Your task to perform on an android device: What's the weather going to be this weekend? Image 0: 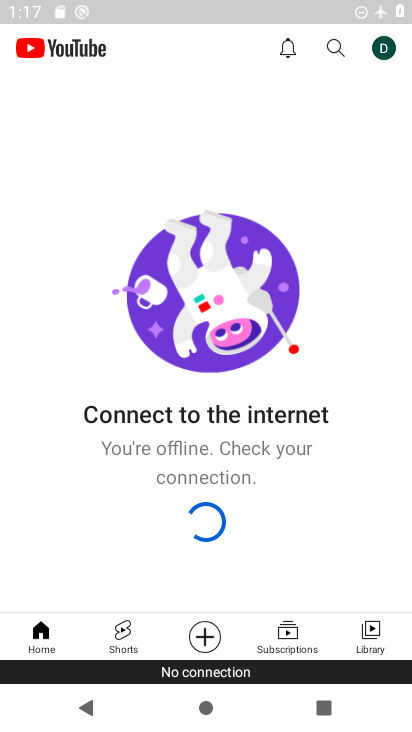
Step 0: press home button
Your task to perform on an android device: What's the weather going to be this weekend? Image 1: 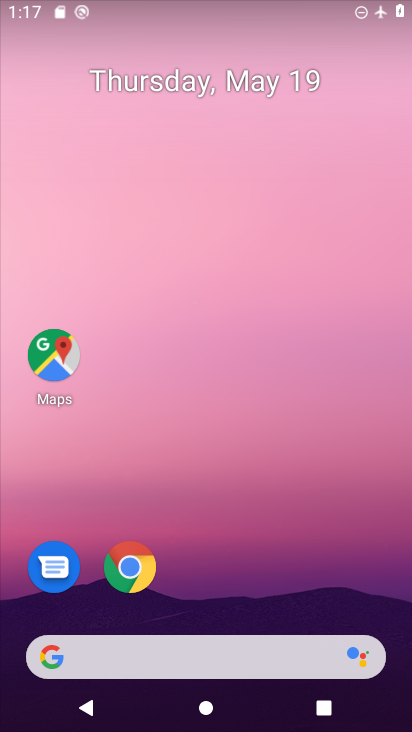
Step 1: click (293, 655)
Your task to perform on an android device: What's the weather going to be this weekend? Image 2: 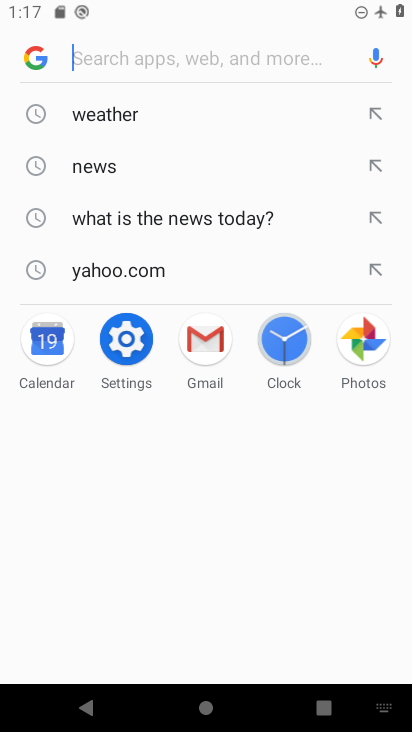
Step 2: click (113, 107)
Your task to perform on an android device: What's the weather going to be this weekend? Image 3: 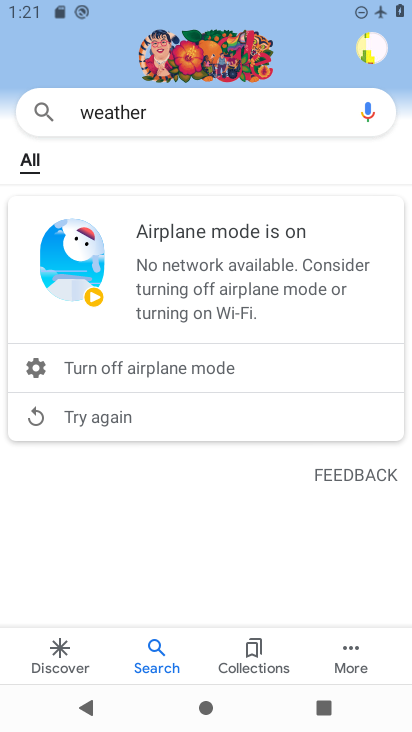
Step 3: task complete